Your task to perform on an android device: turn on the 12-hour format for clock Image 0: 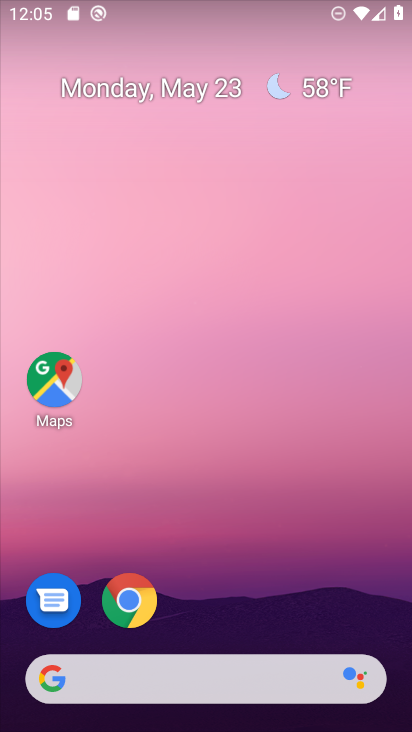
Step 0: drag from (305, 566) to (316, 174)
Your task to perform on an android device: turn on the 12-hour format for clock Image 1: 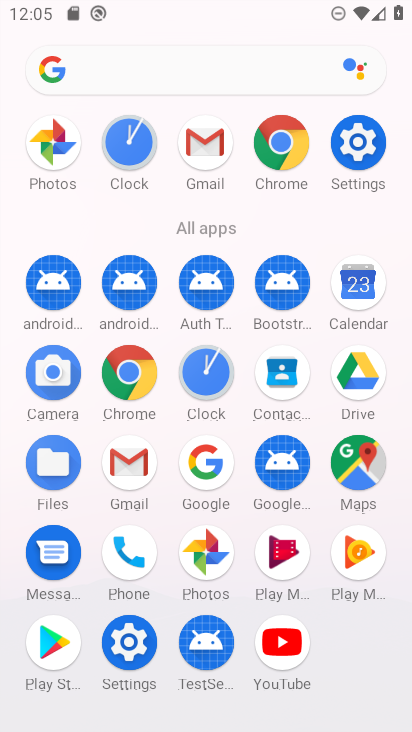
Step 1: click (209, 357)
Your task to perform on an android device: turn on the 12-hour format for clock Image 2: 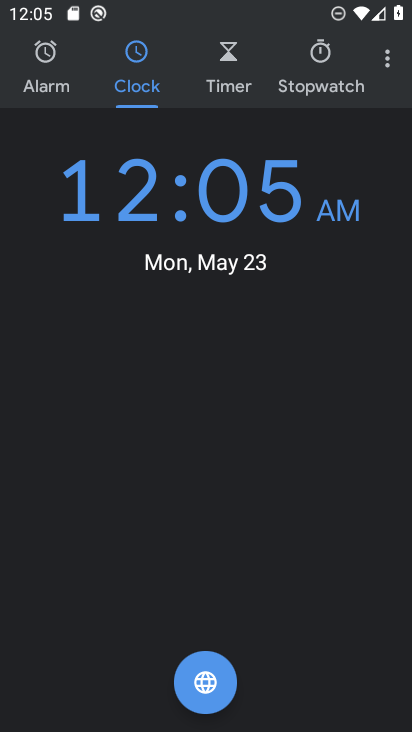
Step 2: click (381, 80)
Your task to perform on an android device: turn on the 12-hour format for clock Image 3: 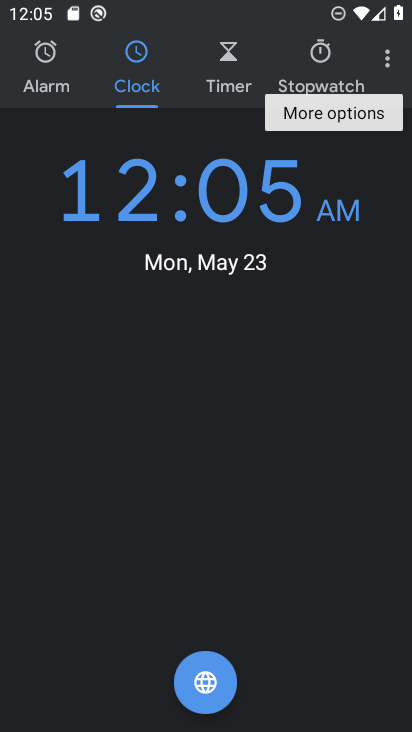
Step 3: click (381, 73)
Your task to perform on an android device: turn on the 12-hour format for clock Image 4: 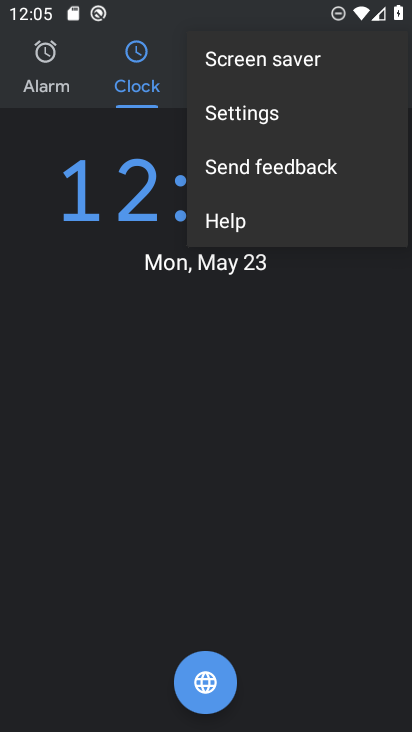
Step 4: click (246, 112)
Your task to perform on an android device: turn on the 12-hour format for clock Image 5: 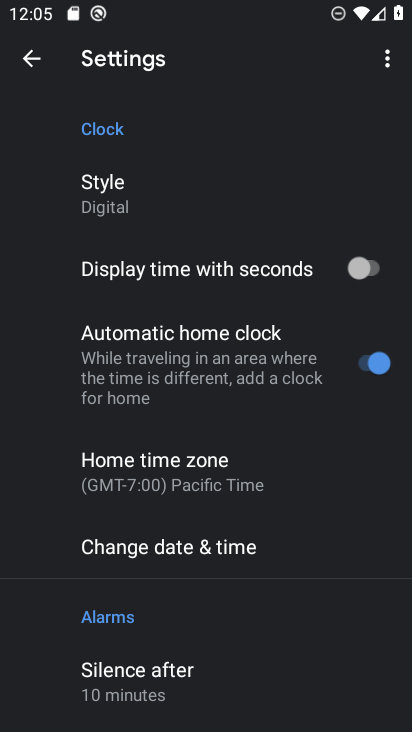
Step 5: click (168, 535)
Your task to perform on an android device: turn on the 12-hour format for clock Image 6: 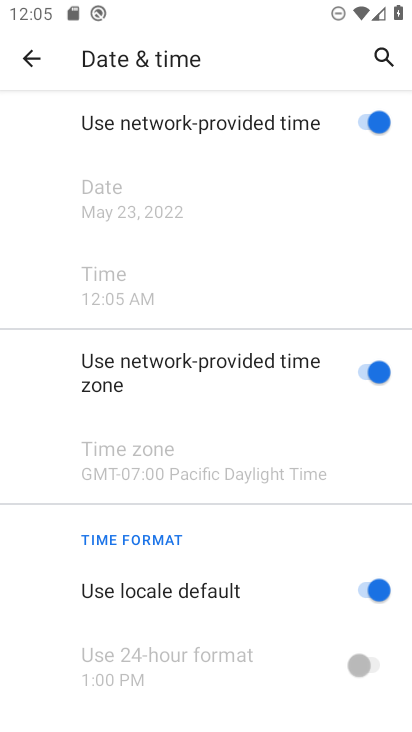
Step 6: task complete